Your task to perform on an android device: Go to display settings Image 0: 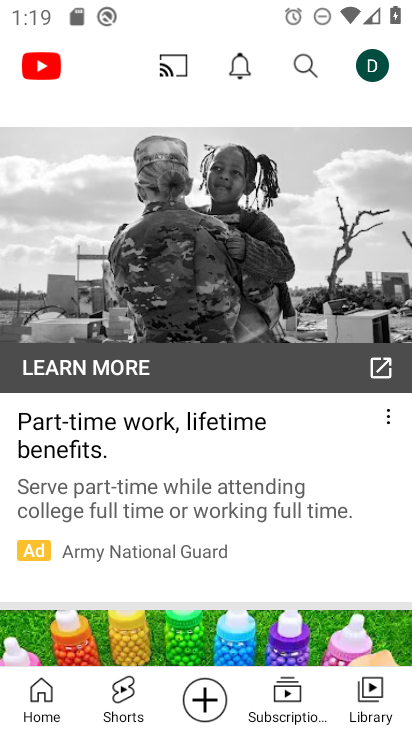
Step 0: press home button
Your task to perform on an android device: Go to display settings Image 1: 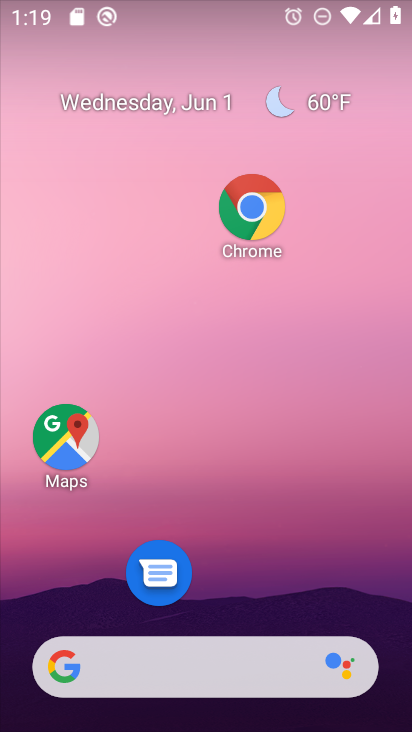
Step 1: drag from (239, 606) to (239, 183)
Your task to perform on an android device: Go to display settings Image 2: 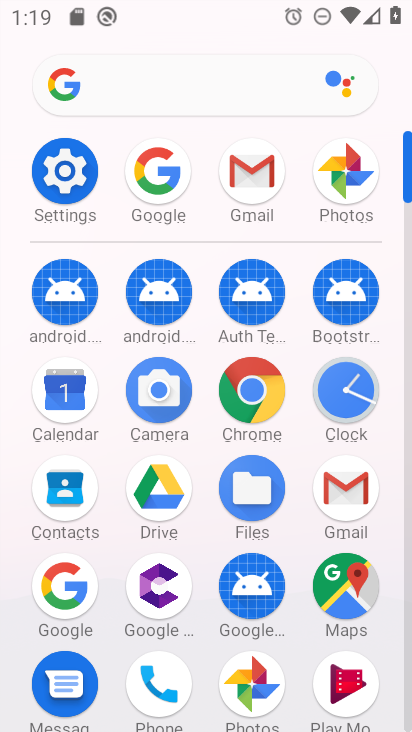
Step 2: click (69, 194)
Your task to perform on an android device: Go to display settings Image 3: 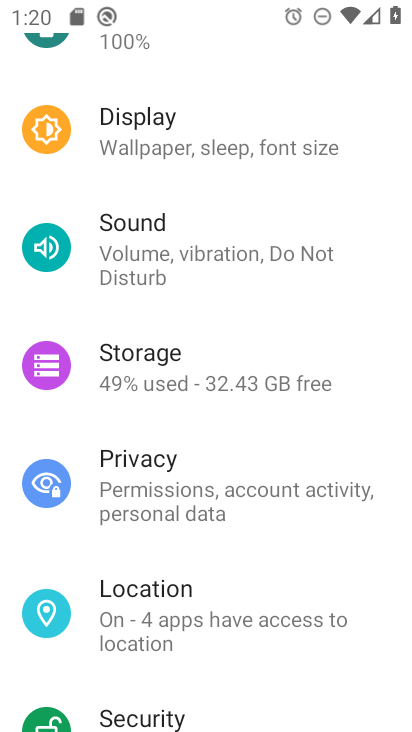
Step 3: click (181, 158)
Your task to perform on an android device: Go to display settings Image 4: 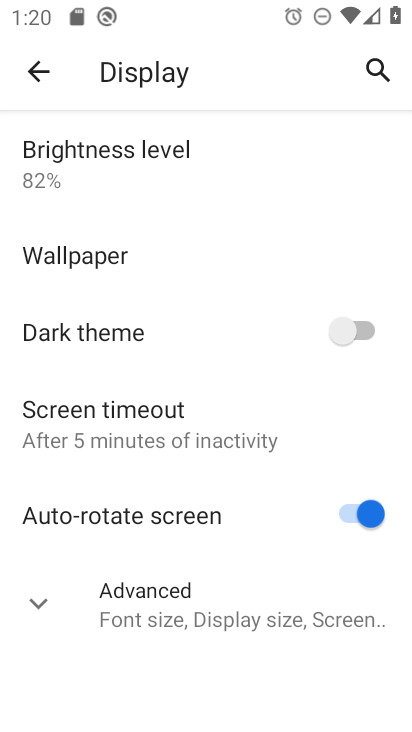
Step 4: task complete